Your task to perform on an android device: Go to accessibility settings Image 0: 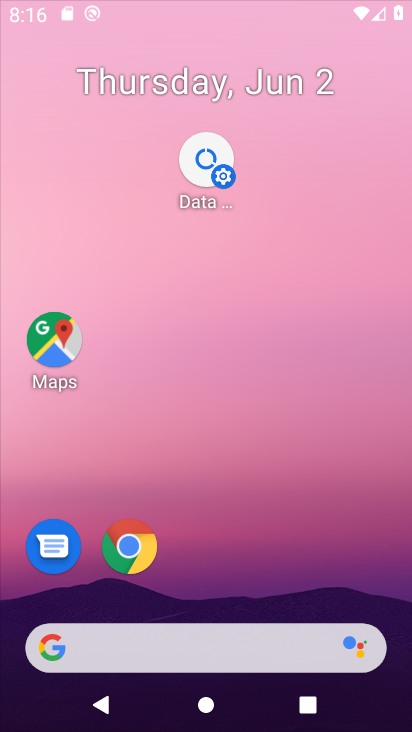
Step 0: click (223, 116)
Your task to perform on an android device: Go to accessibility settings Image 1: 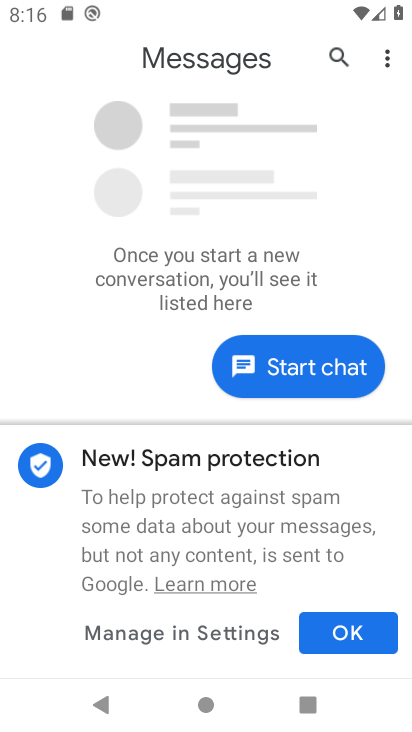
Step 1: click (338, 638)
Your task to perform on an android device: Go to accessibility settings Image 2: 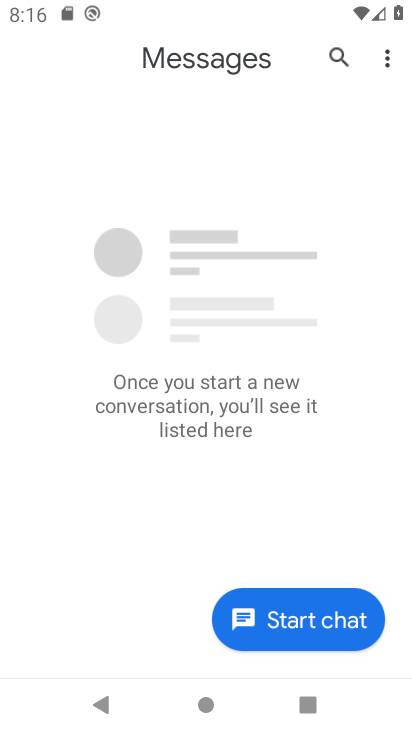
Step 2: press back button
Your task to perform on an android device: Go to accessibility settings Image 3: 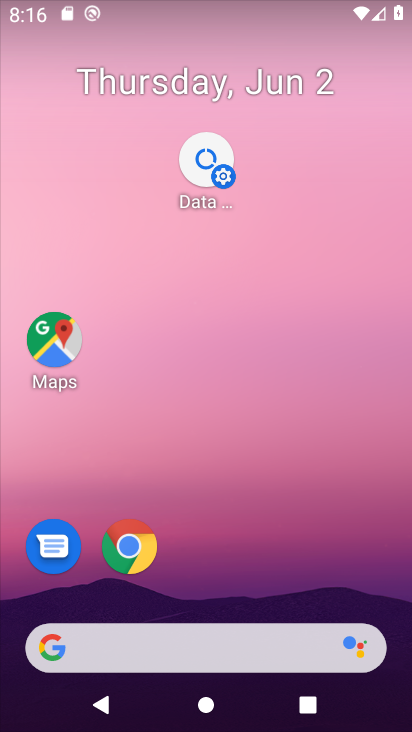
Step 3: drag from (257, 690) to (174, 30)
Your task to perform on an android device: Go to accessibility settings Image 4: 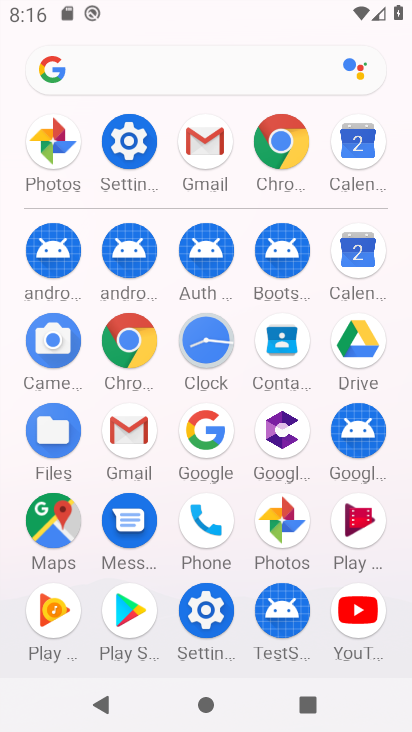
Step 4: click (121, 138)
Your task to perform on an android device: Go to accessibility settings Image 5: 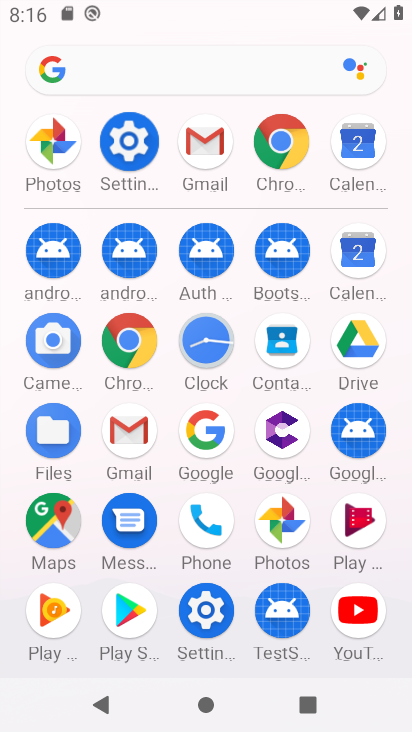
Step 5: click (122, 139)
Your task to perform on an android device: Go to accessibility settings Image 6: 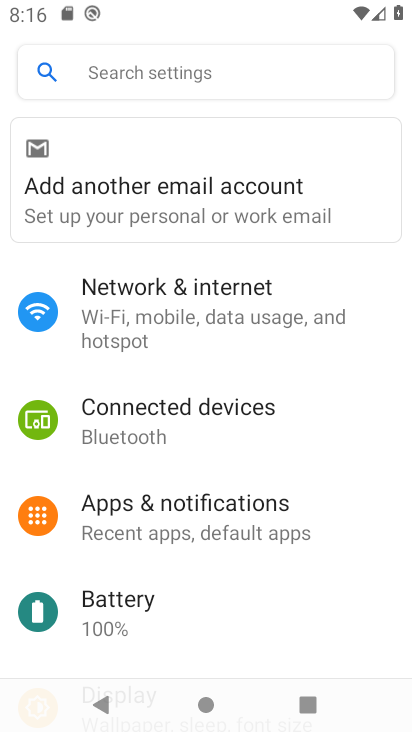
Step 6: drag from (187, 576) to (132, 219)
Your task to perform on an android device: Go to accessibility settings Image 7: 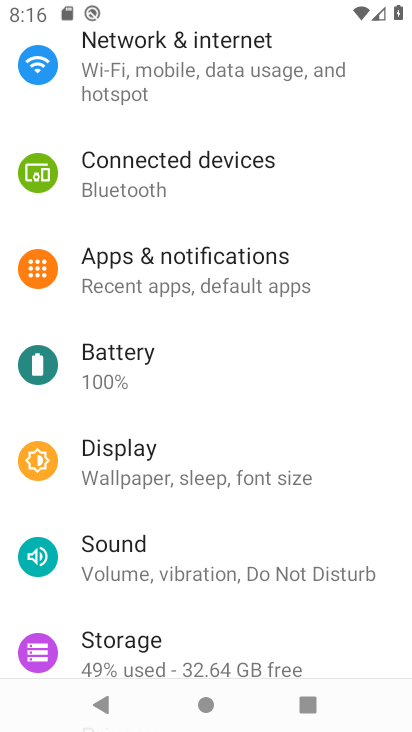
Step 7: drag from (186, 422) to (184, 296)
Your task to perform on an android device: Go to accessibility settings Image 8: 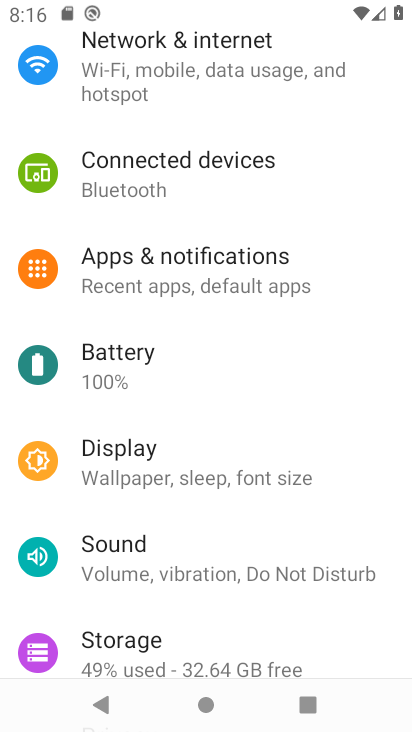
Step 8: drag from (197, 629) to (201, 127)
Your task to perform on an android device: Go to accessibility settings Image 9: 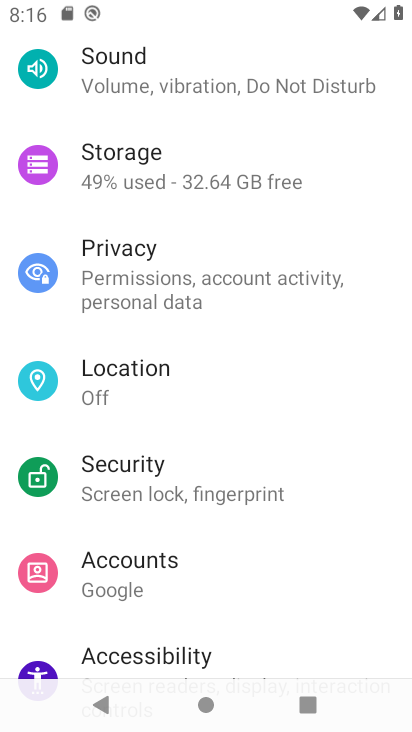
Step 9: drag from (231, 454) to (231, 229)
Your task to perform on an android device: Go to accessibility settings Image 10: 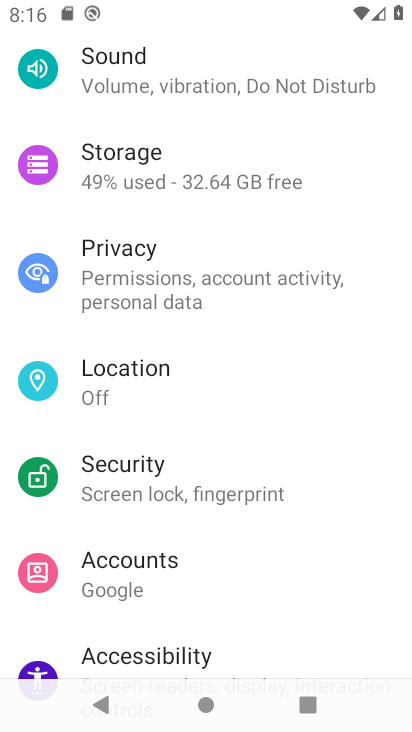
Step 10: drag from (88, 290) to (88, 186)
Your task to perform on an android device: Go to accessibility settings Image 11: 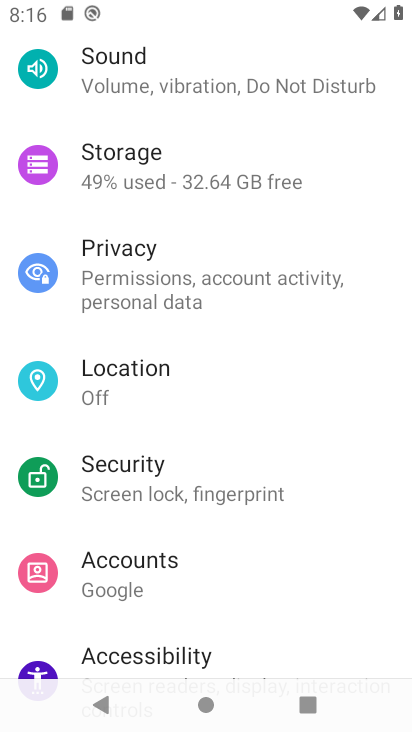
Step 11: drag from (193, 486) to (220, 122)
Your task to perform on an android device: Go to accessibility settings Image 12: 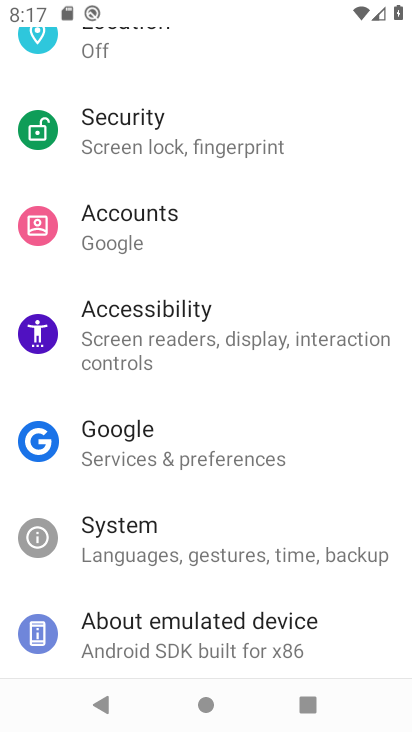
Step 12: click (140, 326)
Your task to perform on an android device: Go to accessibility settings Image 13: 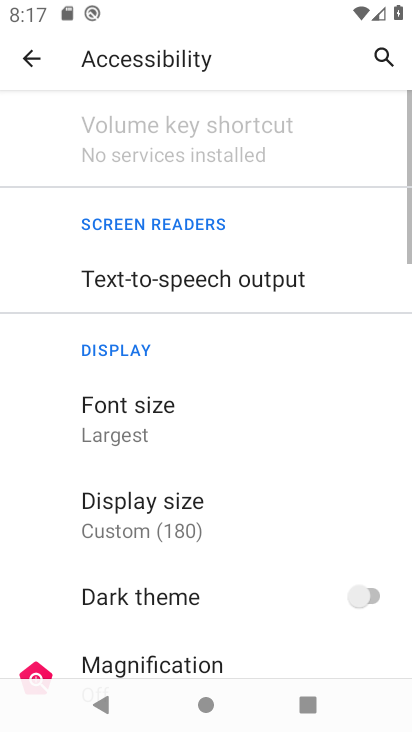
Step 13: click (140, 325)
Your task to perform on an android device: Go to accessibility settings Image 14: 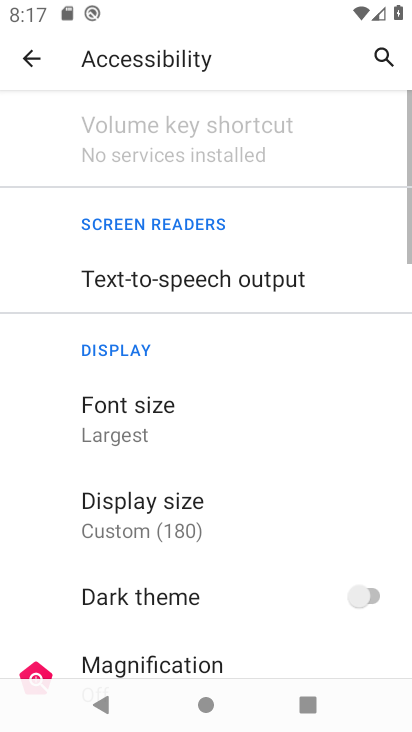
Step 14: click (140, 325)
Your task to perform on an android device: Go to accessibility settings Image 15: 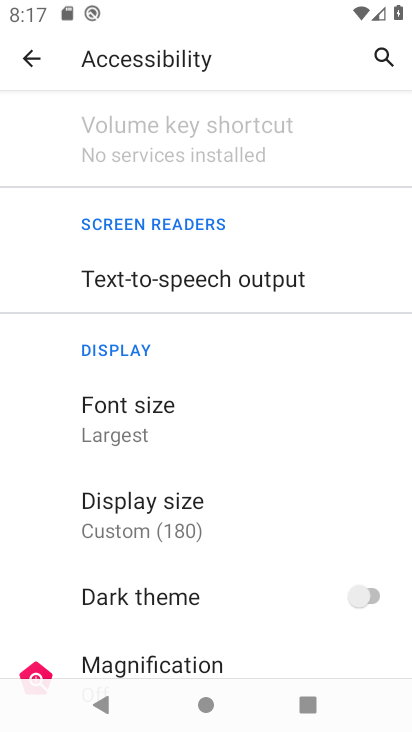
Step 15: task complete